Your task to perform on an android device: open chrome and create a bookmark for the current page Image 0: 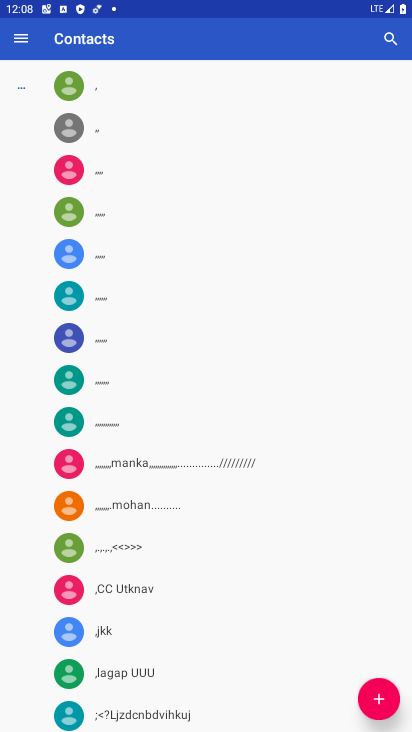
Step 0: press home button
Your task to perform on an android device: open chrome and create a bookmark for the current page Image 1: 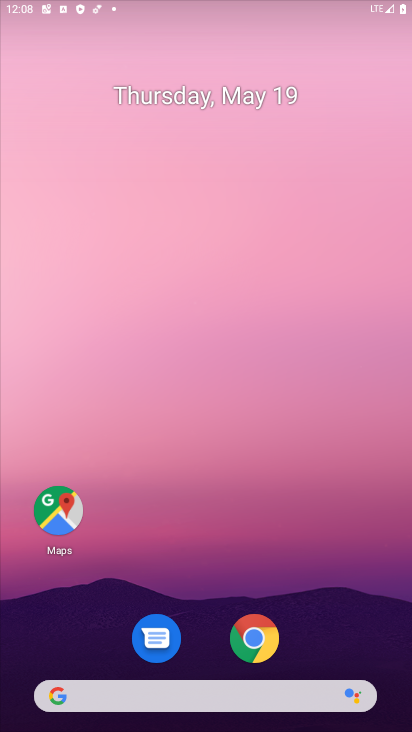
Step 1: drag from (356, 594) to (269, 127)
Your task to perform on an android device: open chrome and create a bookmark for the current page Image 2: 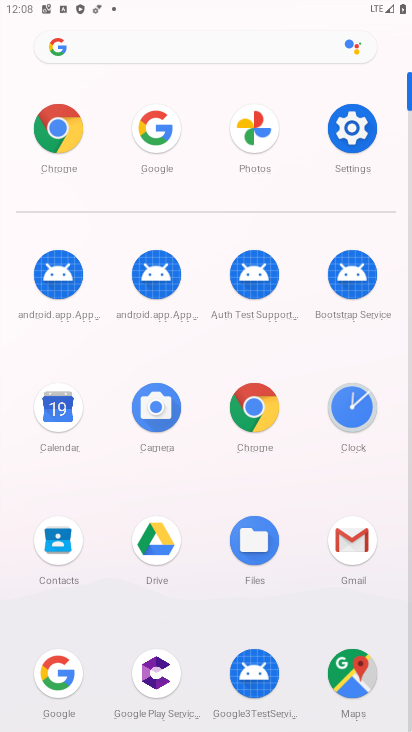
Step 2: click (17, 127)
Your task to perform on an android device: open chrome and create a bookmark for the current page Image 3: 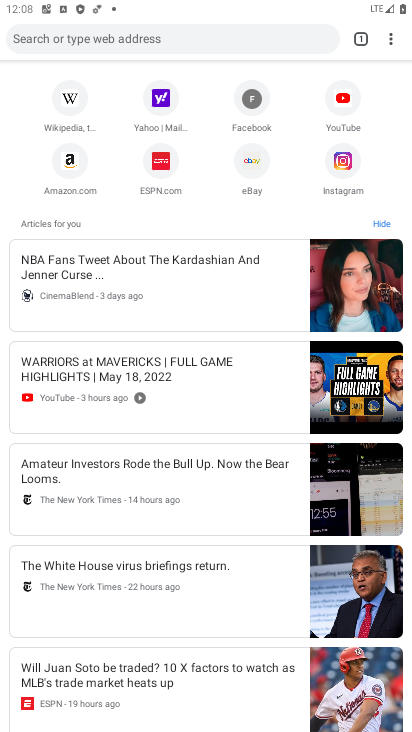
Step 3: click (382, 36)
Your task to perform on an android device: open chrome and create a bookmark for the current page Image 4: 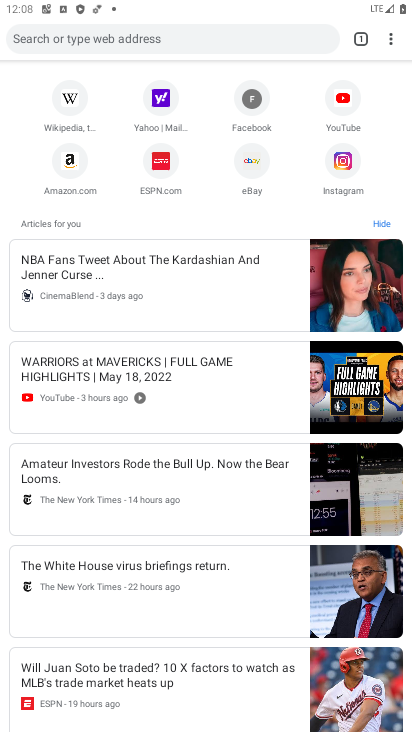
Step 4: click (393, 38)
Your task to perform on an android device: open chrome and create a bookmark for the current page Image 5: 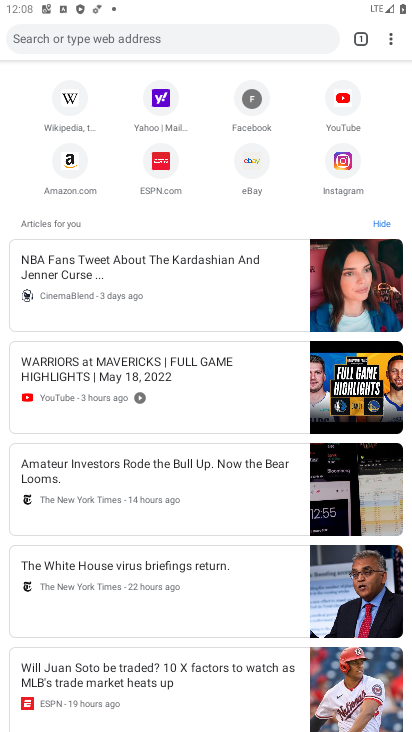
Step 5: click (393, 38)
Your task to perform on an android device: open chrome and create a bookmark for the current page Image 6: 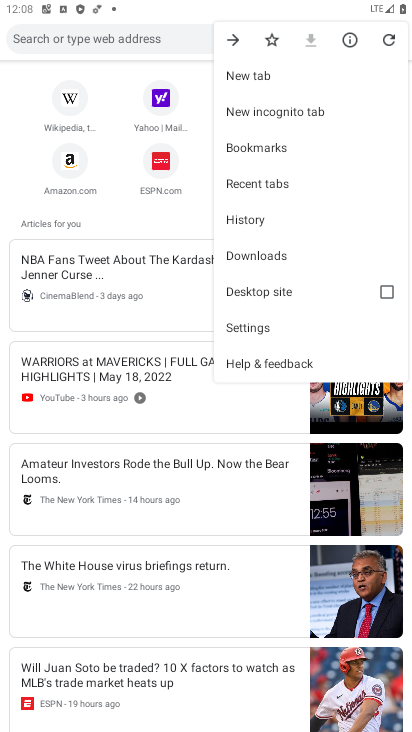
Step 6: click (266, 42)
Your task to perform on an android device: open chrome and create a bookmark for the current page Image 7: 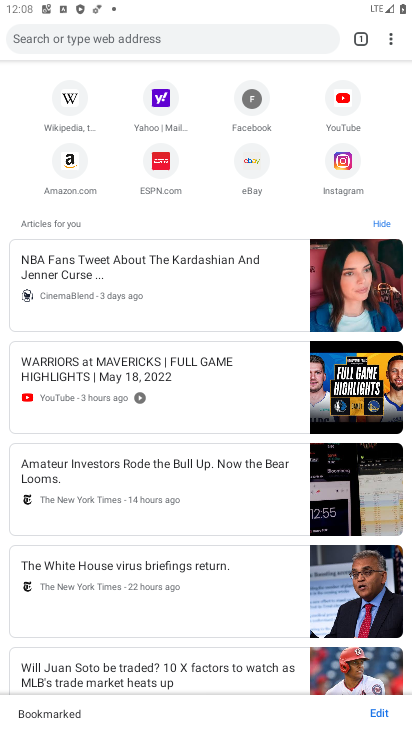
Step 7: task complete